Your task to perform on an android device: open the mobile data screen to see how much data has been used Image 0: 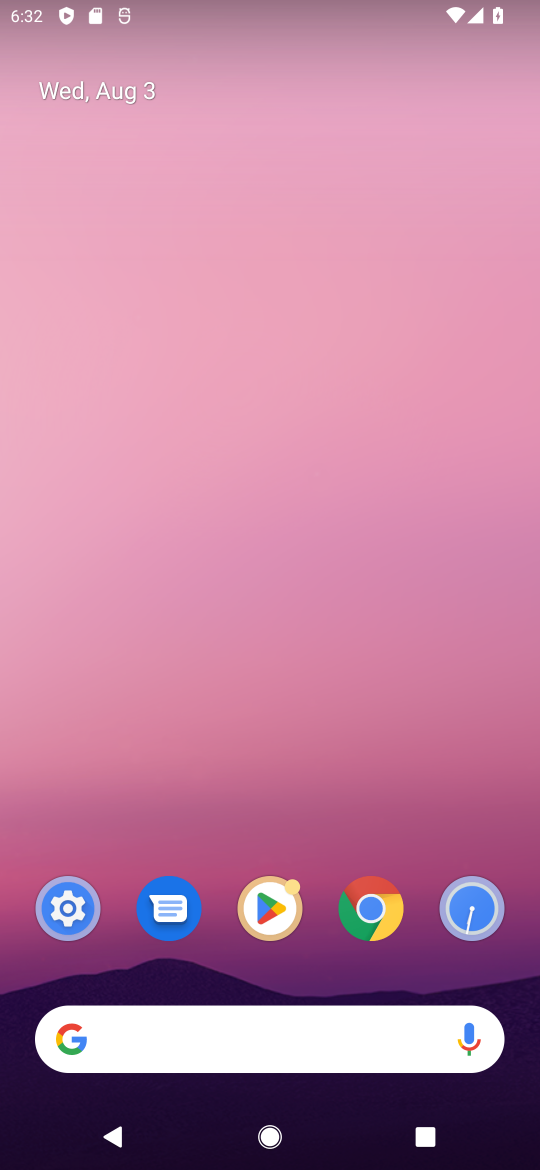
Step 0: click (66, 901)
Your task to perform on an android device: open the mobile data screen to see how much data has been used Image 1: 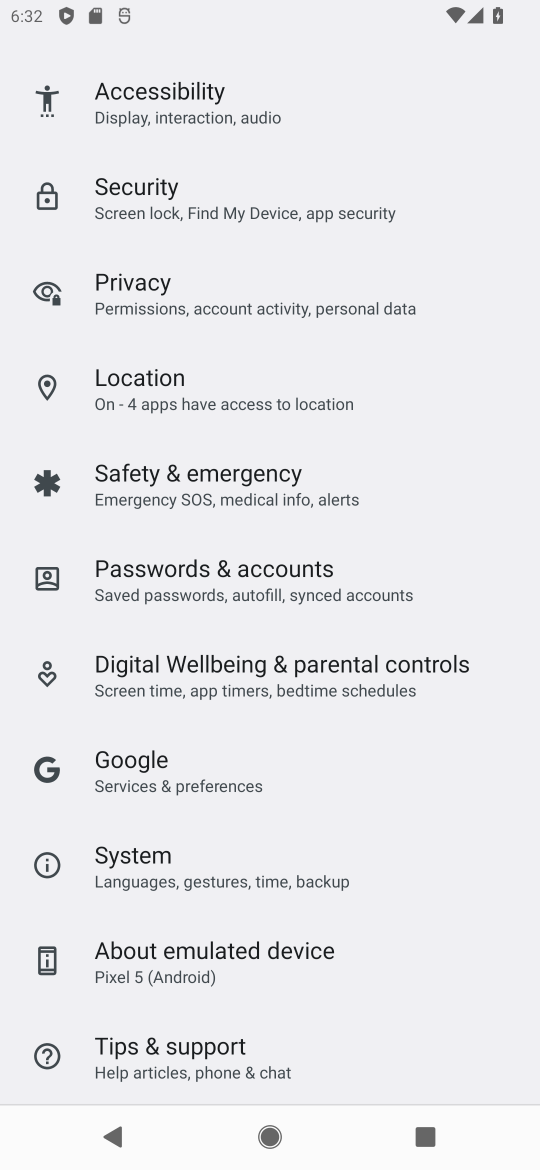
Step 1: drag from (259, 159) to (295, 968)
Your task to perform on an android device: open the mobile data screen to see how much data has been used Image 2: 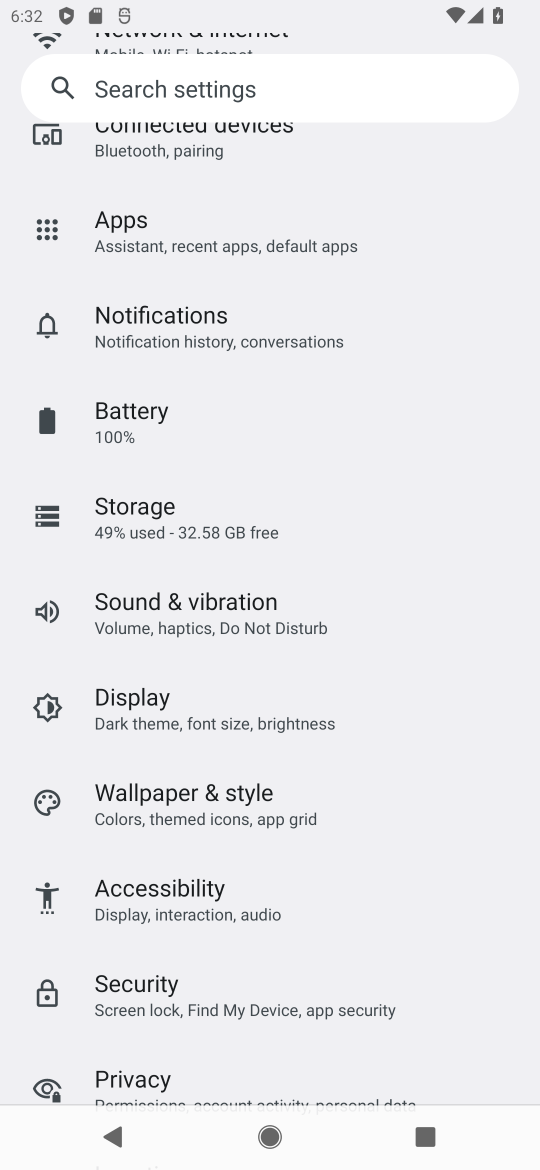
Step 2: drag from (322, 178) to (302, 970)
Your task to perform on an android device: open the mobile data screen to see how much data has been used Image 3: 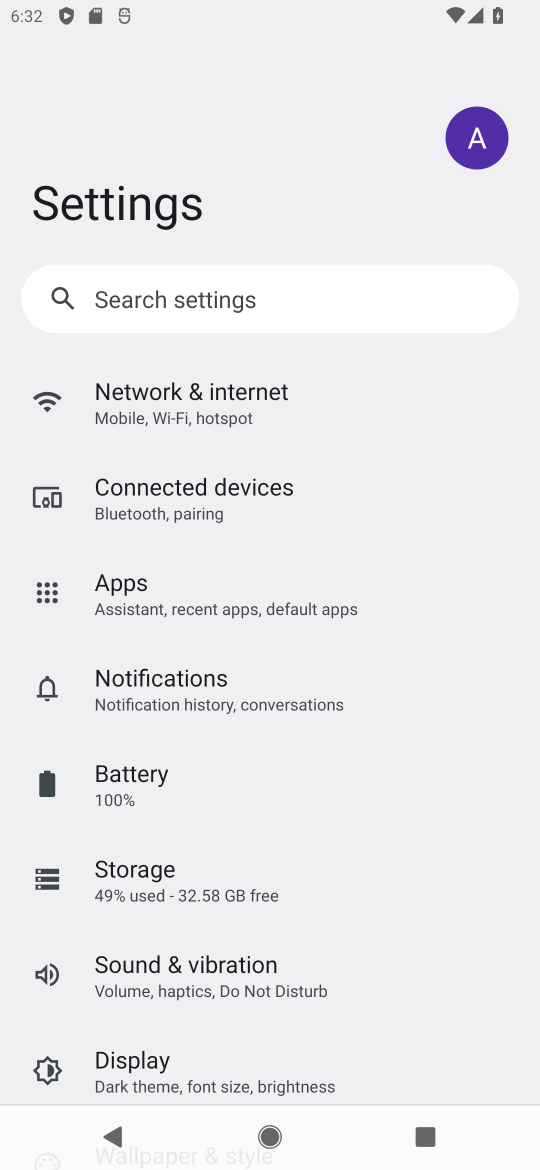
Step 3: click (278, 405)
Your task to perform on an android device: open the mobile data screen to see how much data has been used Image 4: 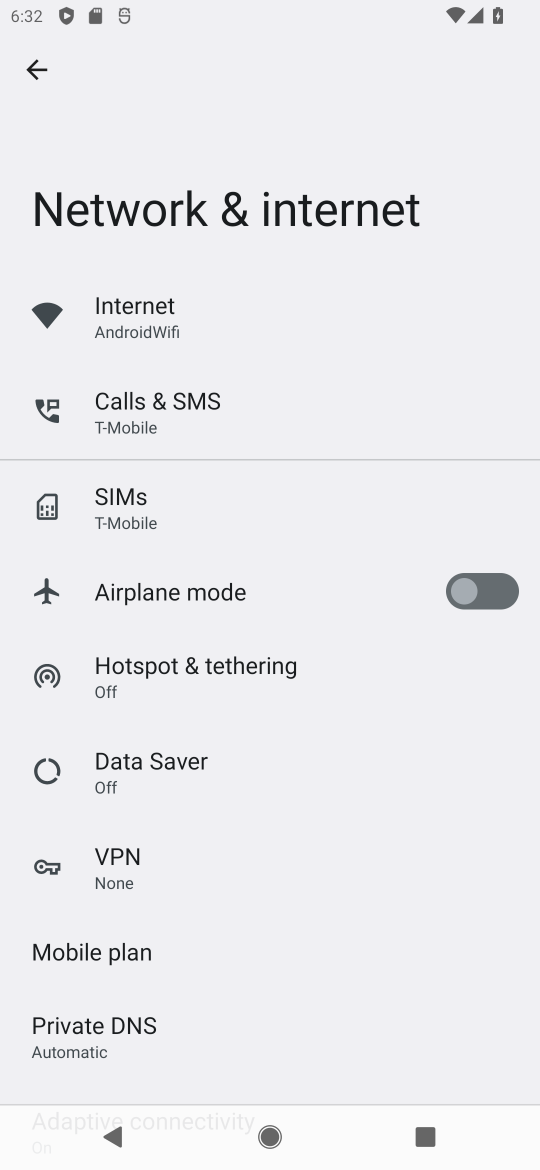
Step 4: click (154, 960)
Your task to perform on an android device: open the mobile data screen to see how much data has been used Image 5: 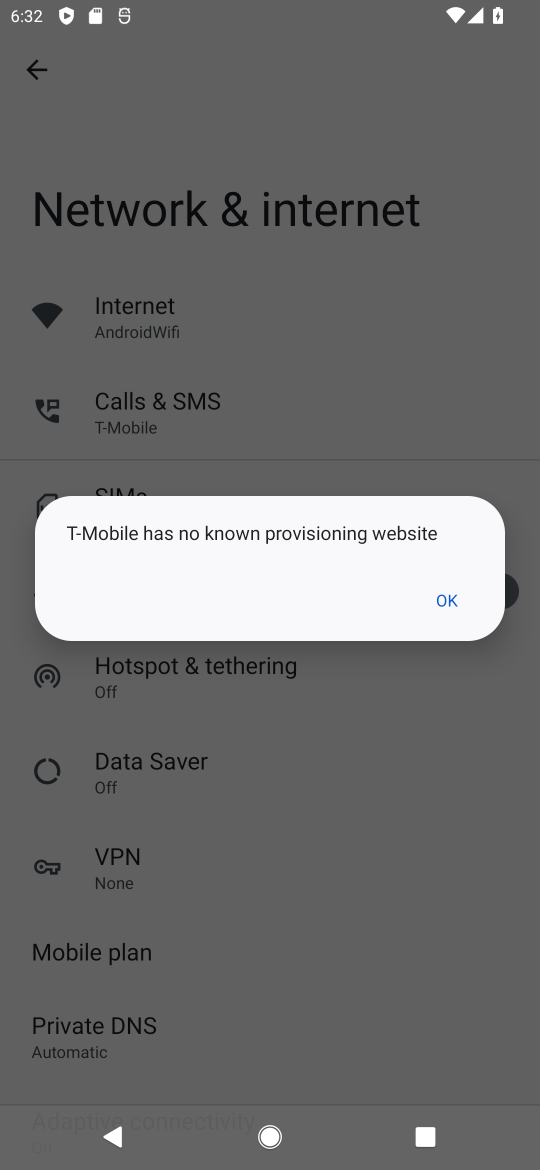
Step 5: click (462, 633)
Your task to perform on an android device: open the mobile data screen to see how much data has been used Image 6: 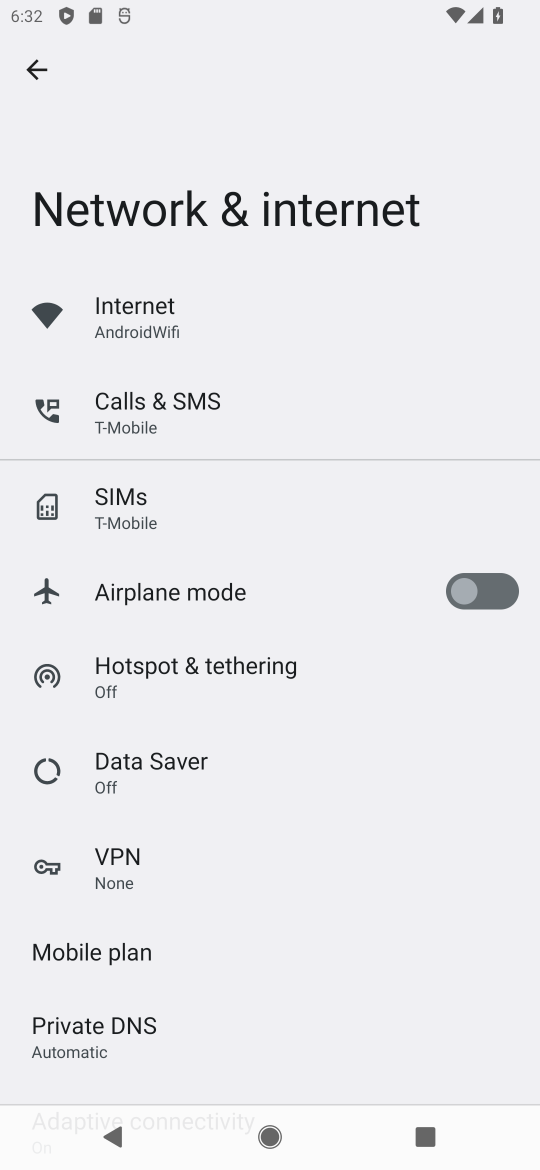
Step 6: task complete